Your task to perform on an android device: check the backup settings in the google photos Image 0: 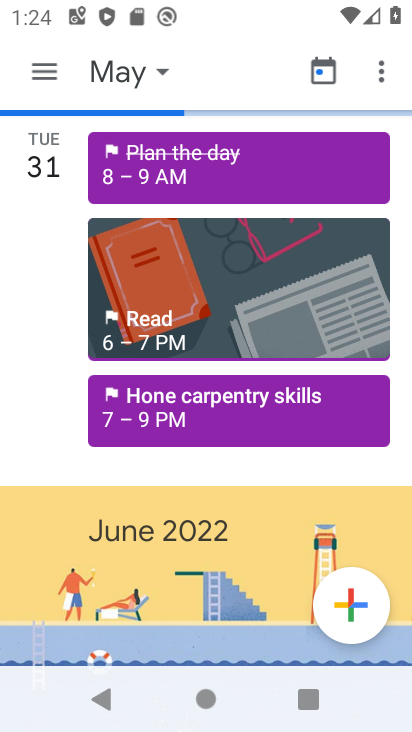
Step 0: press home button
Your task to perform on an android device: check the backup settings in the google photos Image 1: 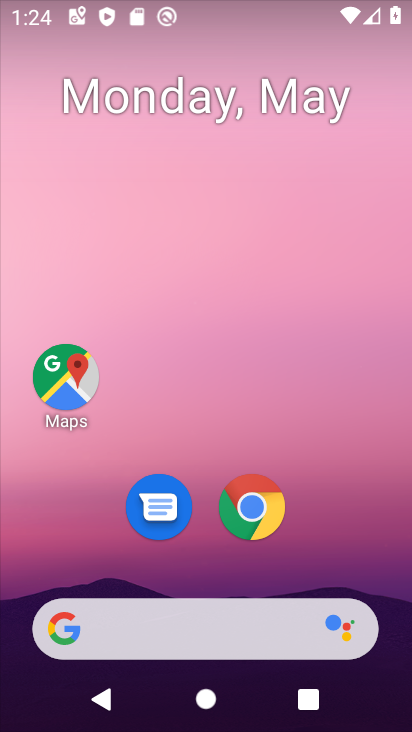
Step 1: drag from (224, 724) to (207, 22)
Your task to perform on an android device: check the backup settings in the google photos Image 2: 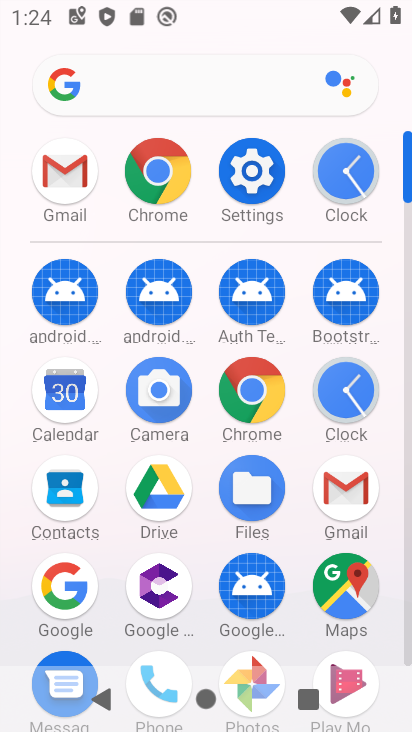
Step 2: click (256, 670)
Your task to perform on an android device: check the backup settings in the google photos Image 3: 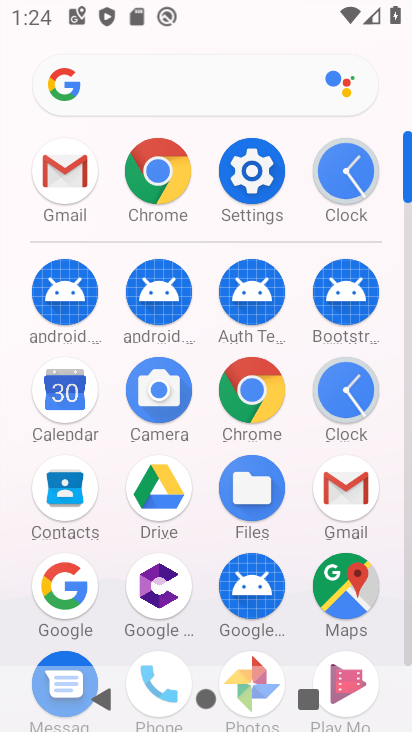
Step 3: drag from (301, 628) to (281, 259)
Your task to perform on an android device: check the backup settings in the google photos Image 4: 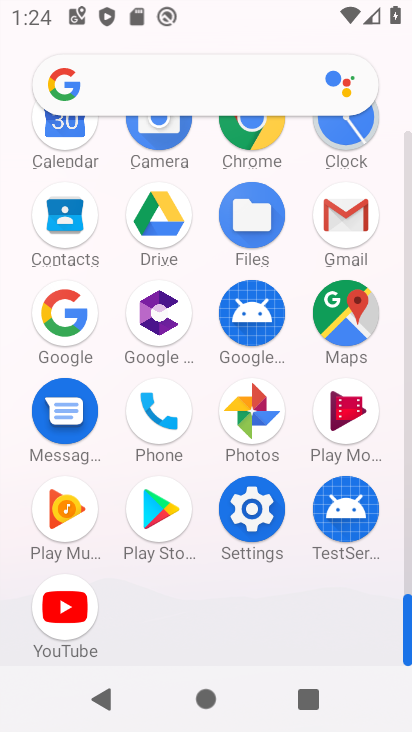
Step 4: click (254, 409)
Your task to perform on an android device: check the backup settings in the google photos Image 5: 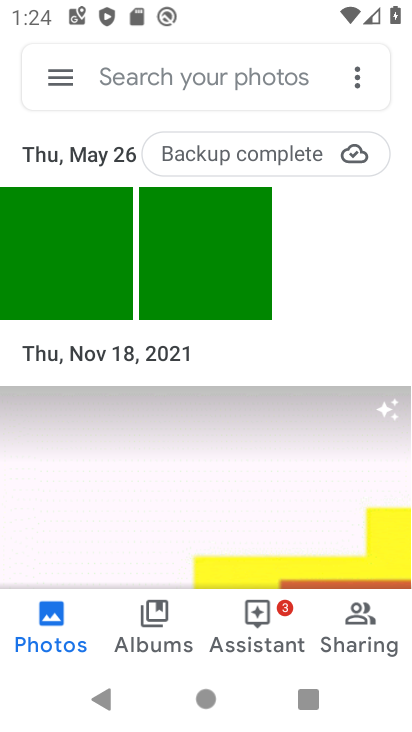
Step 5: click (58, 74)
Your task to perform on an android device: check the backup settings in the google photos Image 6: 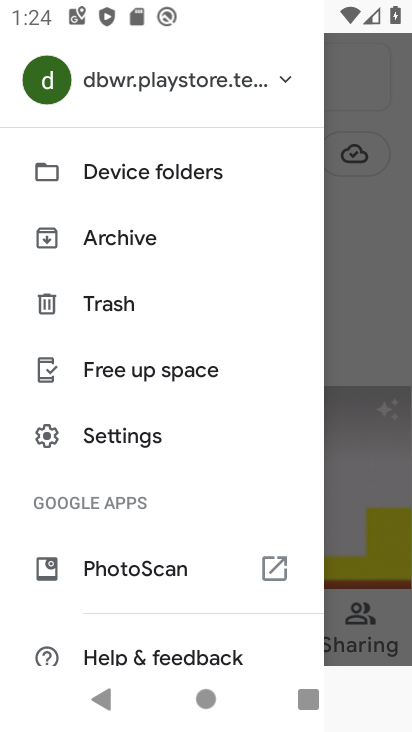
Step 6: drag from (122, 569) to (124, 443)
Your task to perform on an android device: check the backup settings in the google photos Image 7: 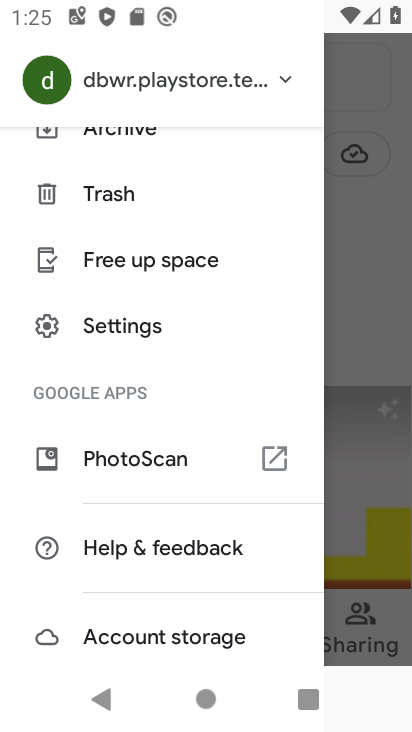
Step 7: click (120, 327)
Your task to perform on an android device: check the backup settings in the google photos Image 8: 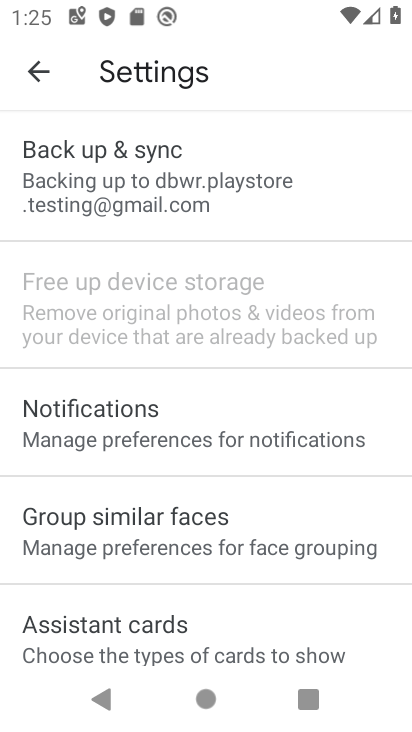
Step 8: click (89, 174)
Your task to perform on an android device: check the backup settings in the google photos Image 9: 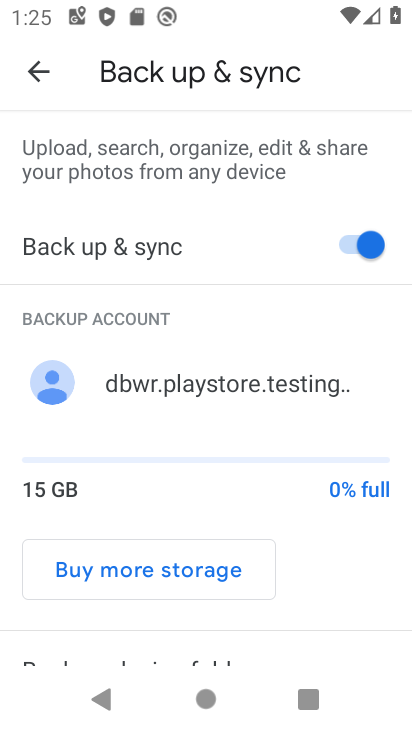
Step 9: task complete